Your task to perform on an android device: Search for "logitech g pro" on bestbuy, select the first entry, add it to the cart, then select checkout. Image 0: 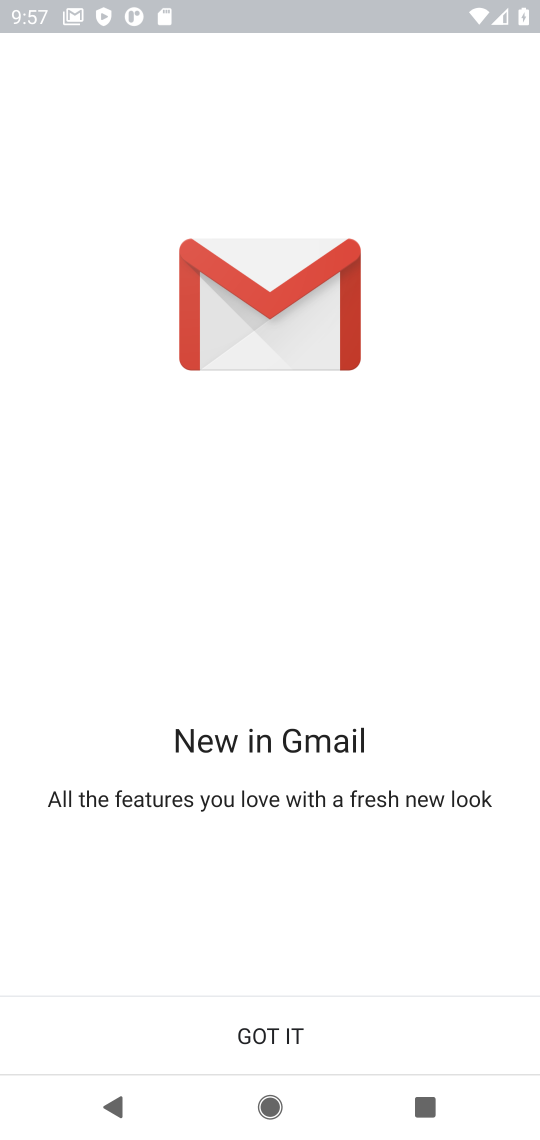
Step 0: press home button
Your task to perform on an android device: Search for "logitech g pro" on bestbuy, select the first entry, add it to the cart, then select checkout. Image 1: 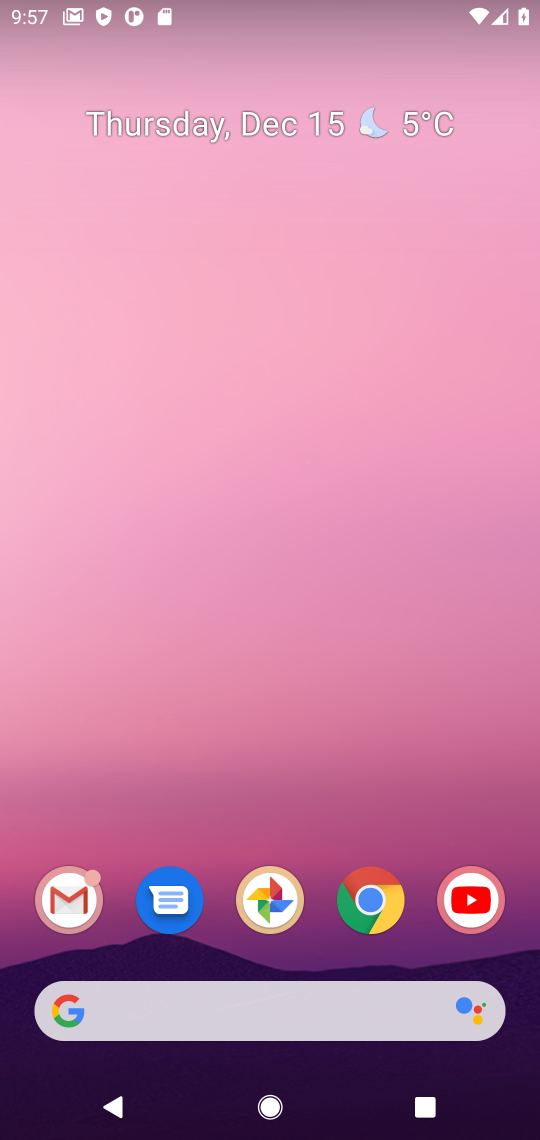
Step 1: click (368, 916)
Your task to perform on an android device: Search for "logitech g pro" on bestbuy, select the first entry, add it to the cart, then select checkout. Image 2: 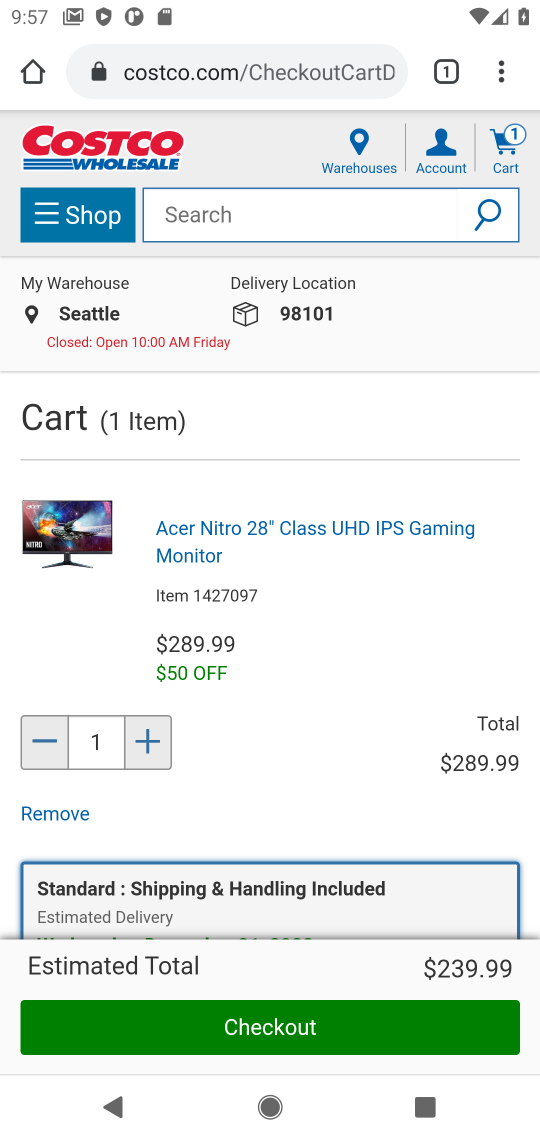
Step 2: click (255, 64)
Your task to perform on an android device: Search for "logitech g pro" on bestbuy, select the first entry, add it to the cart, then select checkout. Image 3: 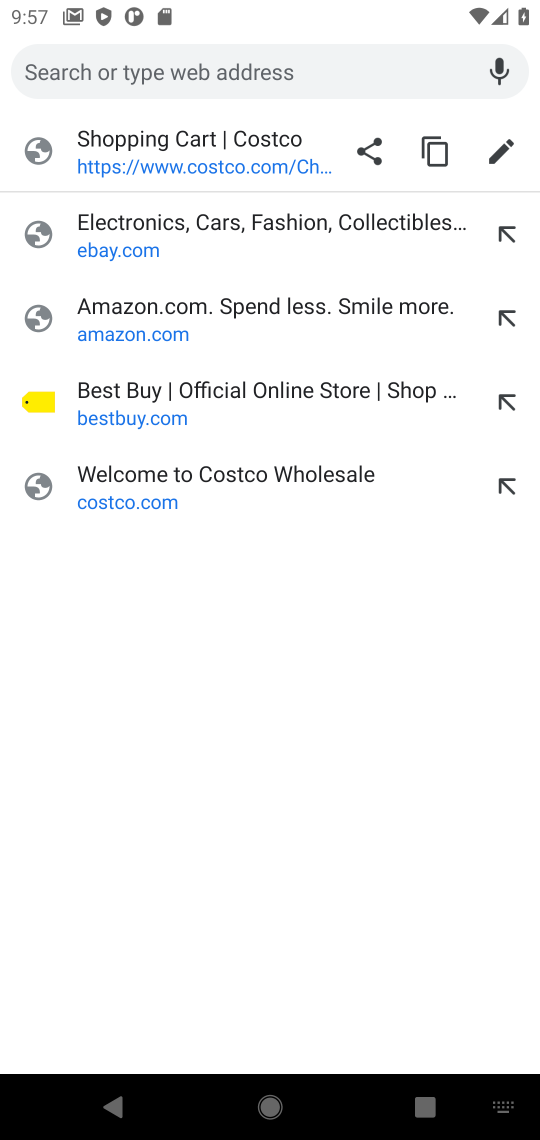
Step 3: type "bestbuy"
Your task to perform on an android device: Search for "logitech g pro" on bestbuy, select the first entry, add it to the cart, then select checkout. Image 4: 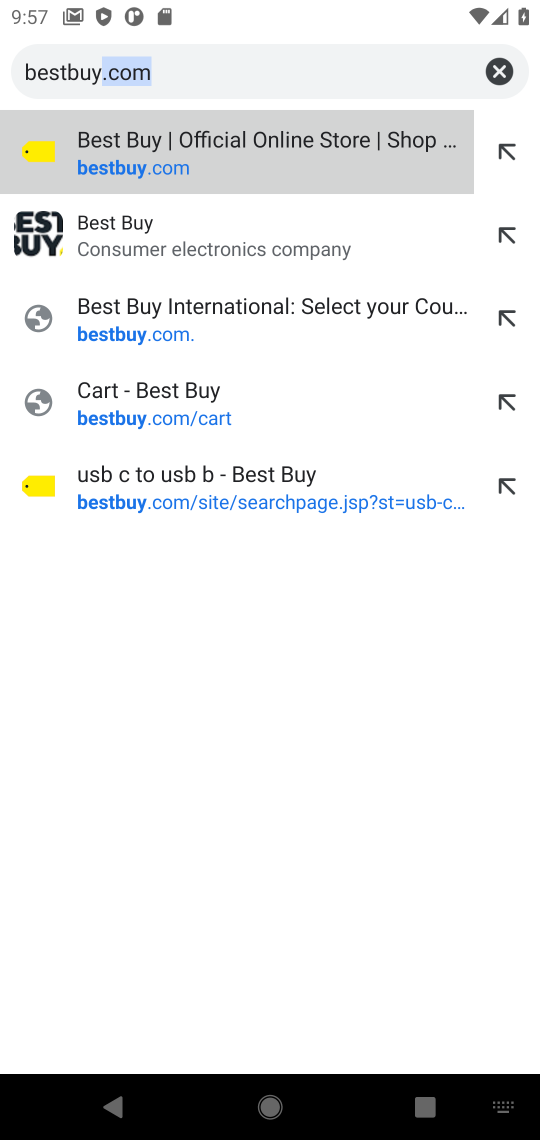
Step 4: click (193, 182)
Your task to perform on an android device: Search for "logitech g pro" on bestbuy, select the first entry, add it to the cart, then select checkout. Image 5: 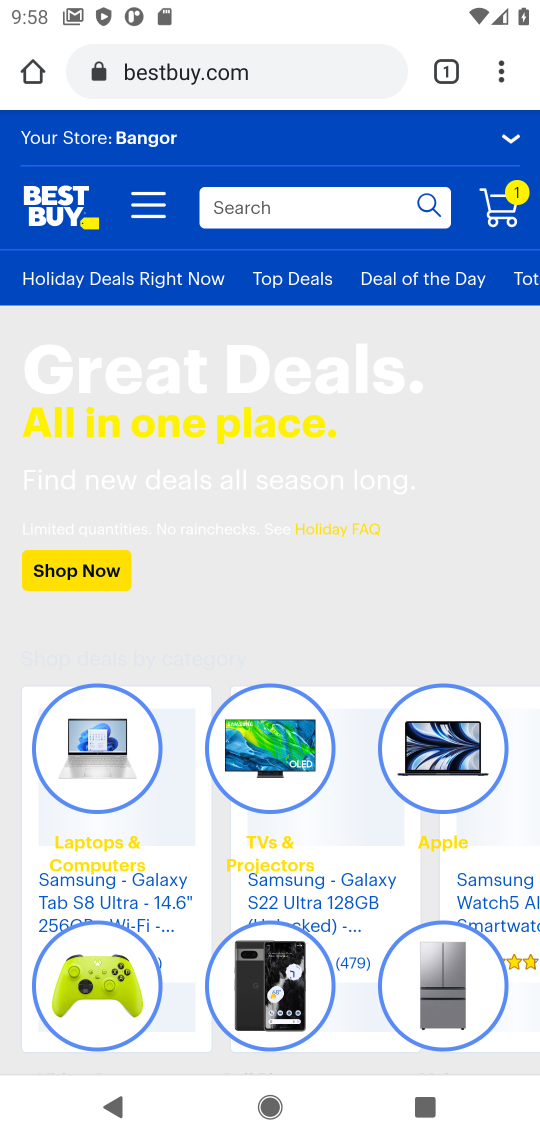
Step 5: click (338, 214)
Your task to perform on an android device: Search for "logitech g pro" on bestbuy, select the first entry, add it to the cart, then select checkout. Image 6: 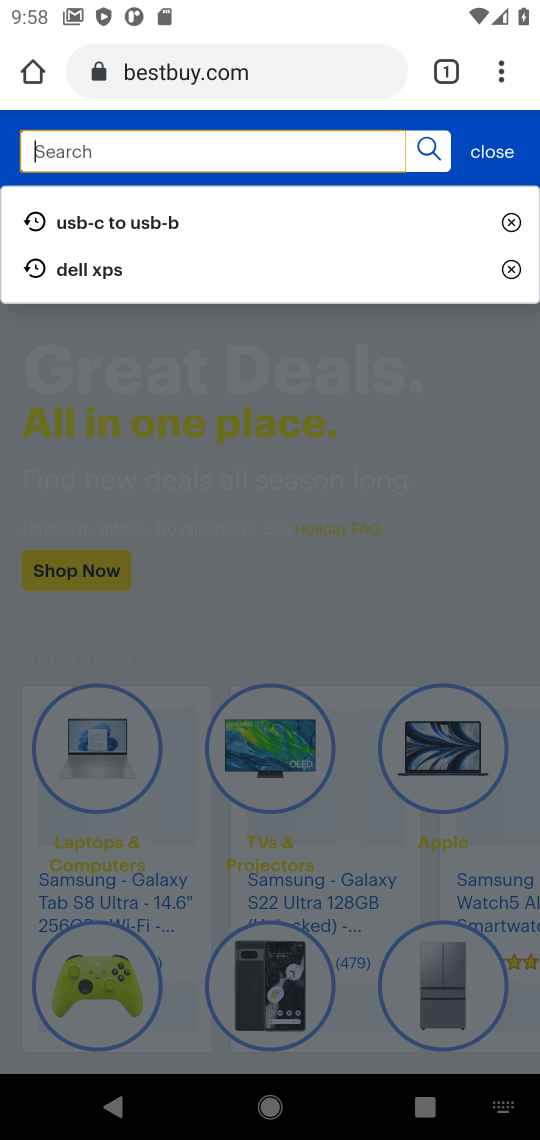
Step 6: type "logitech g pro"
Your task to perform on an android device: Search for "logitech g pro" on bestbuy, select the first entry, add it to the cart, then select checkout. Image 7: 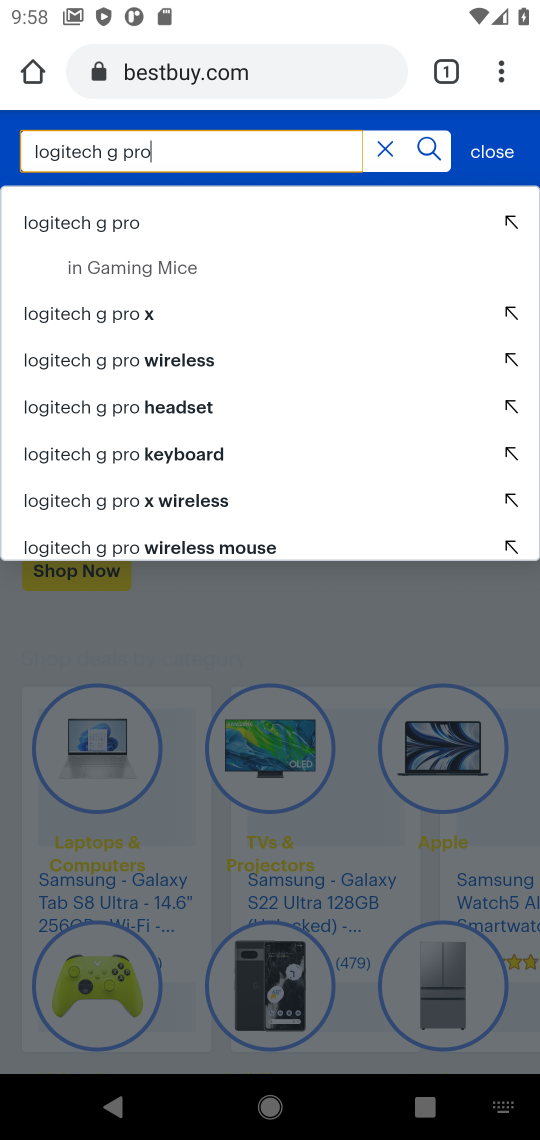
Step 7: press enter
Your task to perform on an android device: Search for "logitech g pro" on bestbuy, select the first entry, add it to the cart, then select checkout. Image 8: 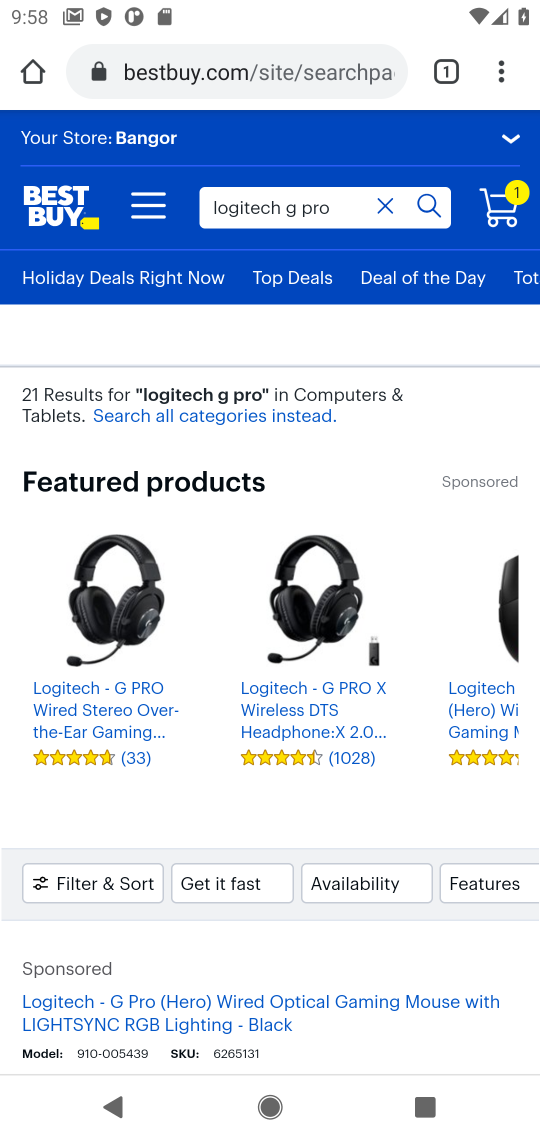
Step 8: drag from (314, 739) to (215, 258)
Your task to perform on an android device: Search for "logitech g pro" on bestbuy, select the first entry, add it to the cart, then select checkout. Image 9: 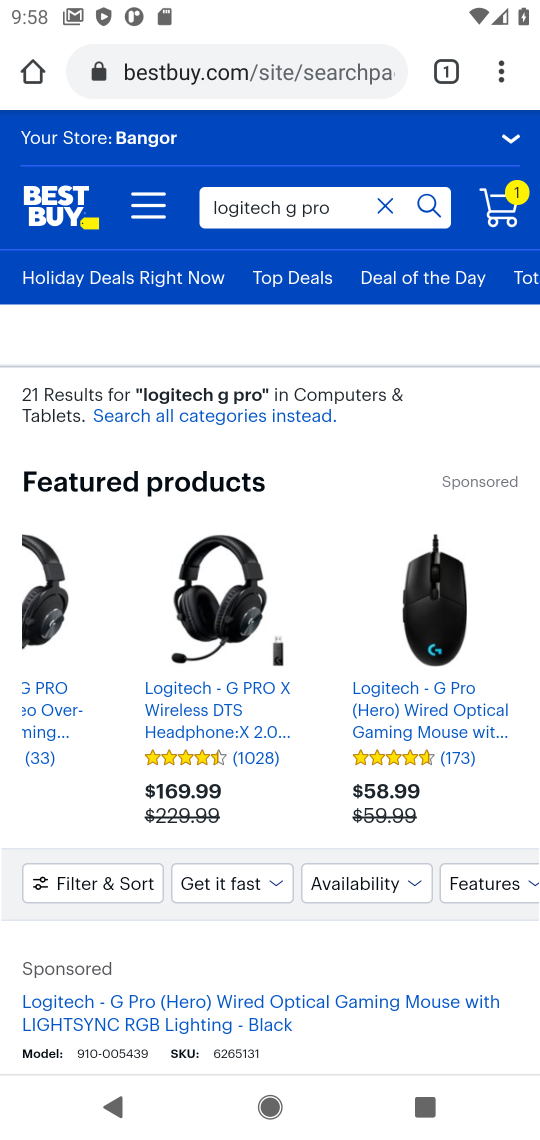
Step 9: drag from (325, 890) to (314, 533)
Your task to perform on an android device: Search for "logitech g pro" on bestbuy, select the first entry, add it to the cart, then select checkout. Image 10: 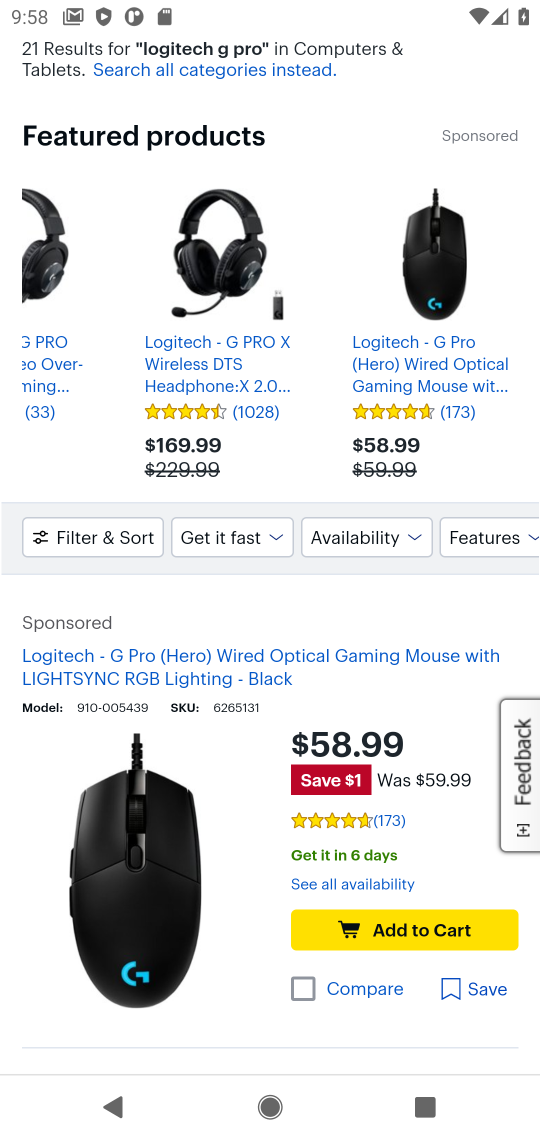
Step 10: click (428, 934)
Your task to perform on an android device: Search for "logitech g pro" on bestbuy, select the first entry, add it to the cart, then select checkout. Image 11: 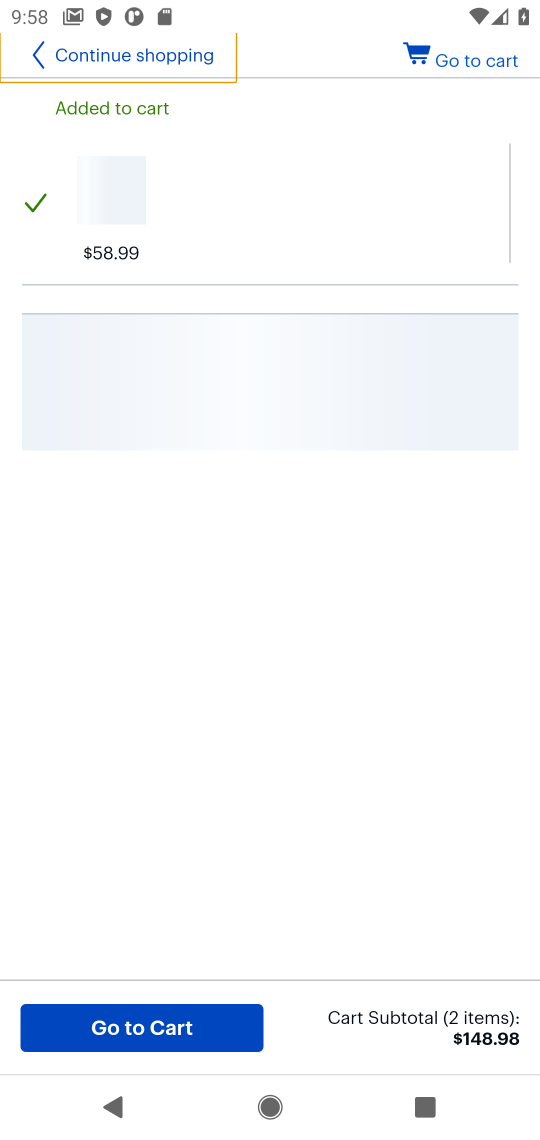
Step 11: click (106, 1021)
Your task to perform on an android device: Search for "logitech g pro" on bestbuy, select the first entry, add it to the cart, then select checkout. Image 12: 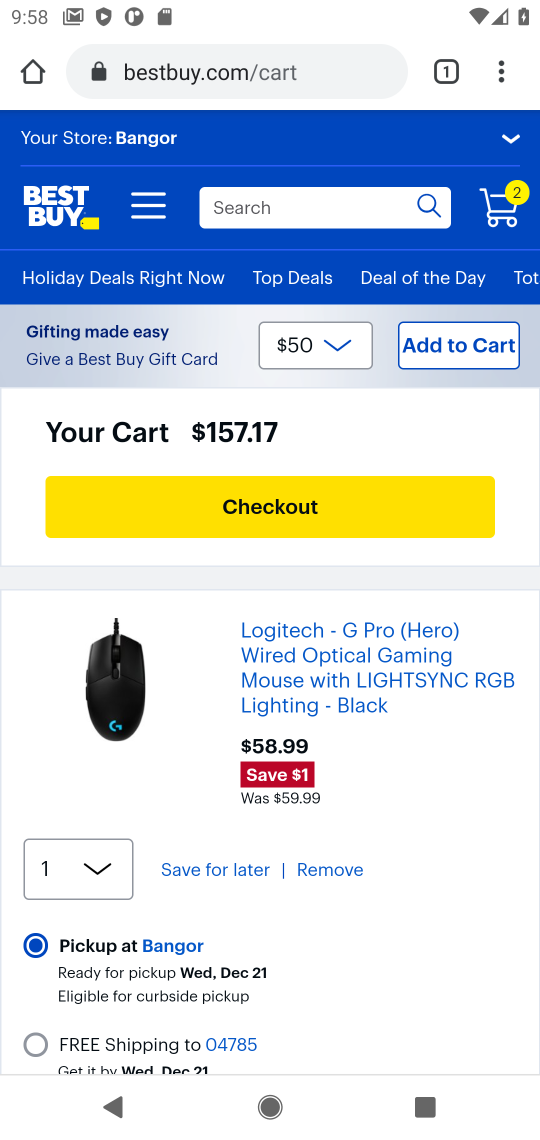
Step 12: click (350, 486)
Your task to perform on an android device: Search for "logitech g pro" on bestbuy, select the first entry, add it to the cart, then select checkout. Image 13: 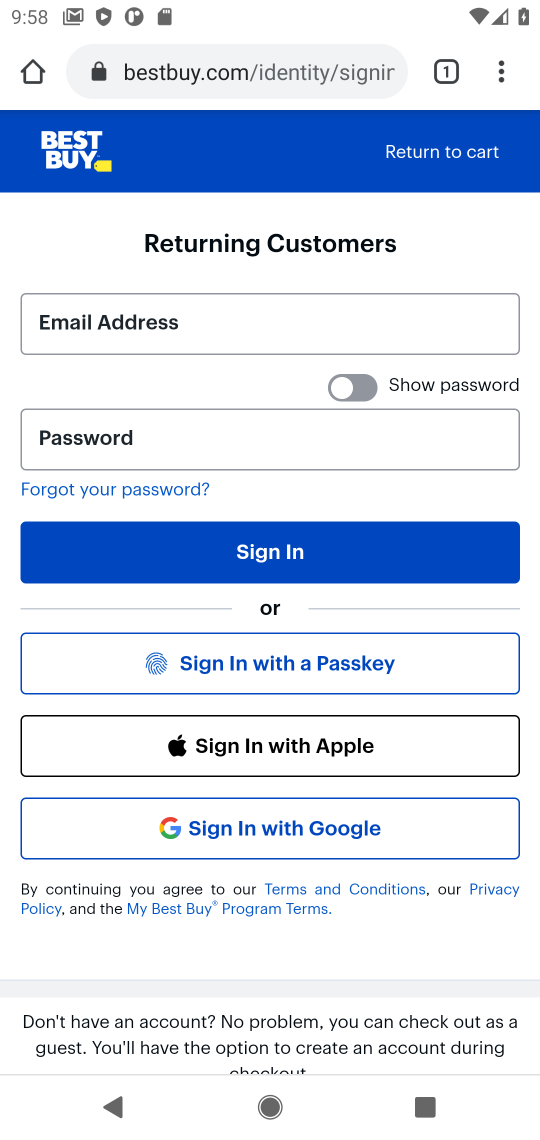
Step 13: task complete